Your task to perform on an android device: Go to sound settings Image 0: 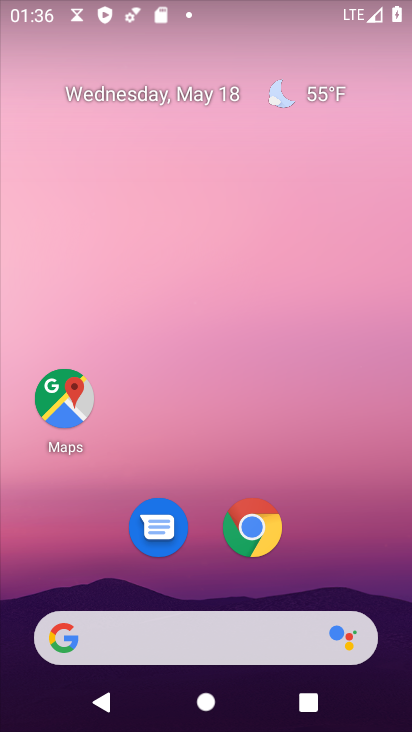
Step 0: drag from (317, 547) to (240, 117)
Your task to perform on an android device: Go to sound settings Image 1: 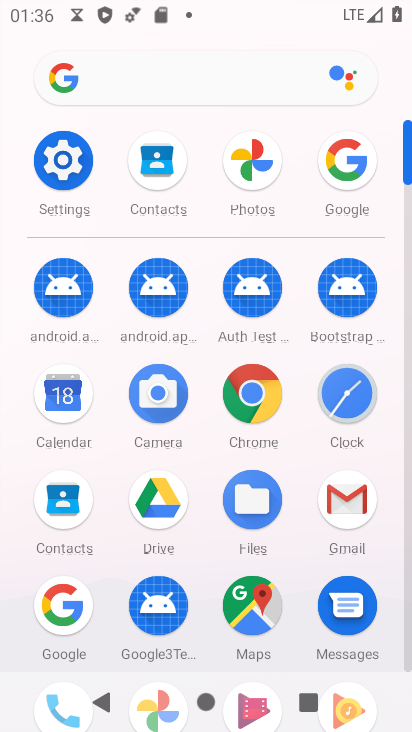
Step 1: click (64, 165)
Your task to perform on an android device: Go to sound settings Image 2: 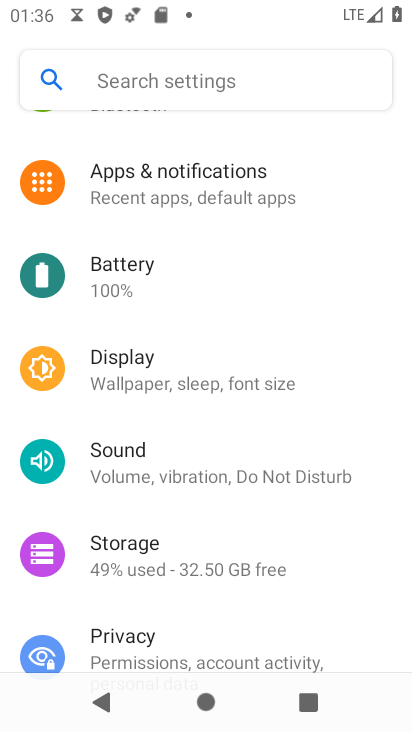
Step 2: click (171, 452)
Your task to perform on an android device: Go to sound settings Image 3: 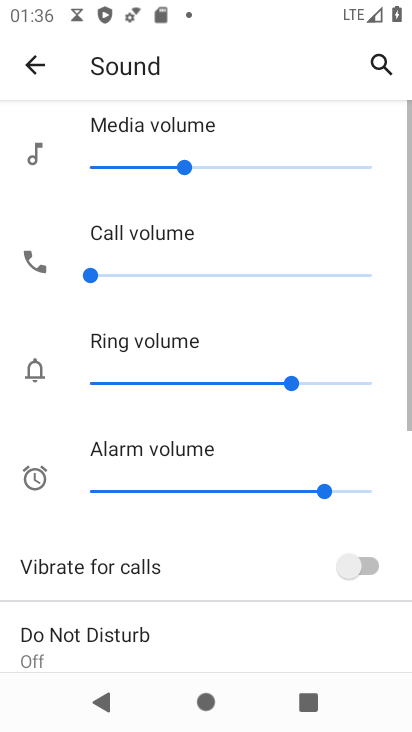
Step 3: task complete